Your task to perform on an android device: open wifi settings Image 0: 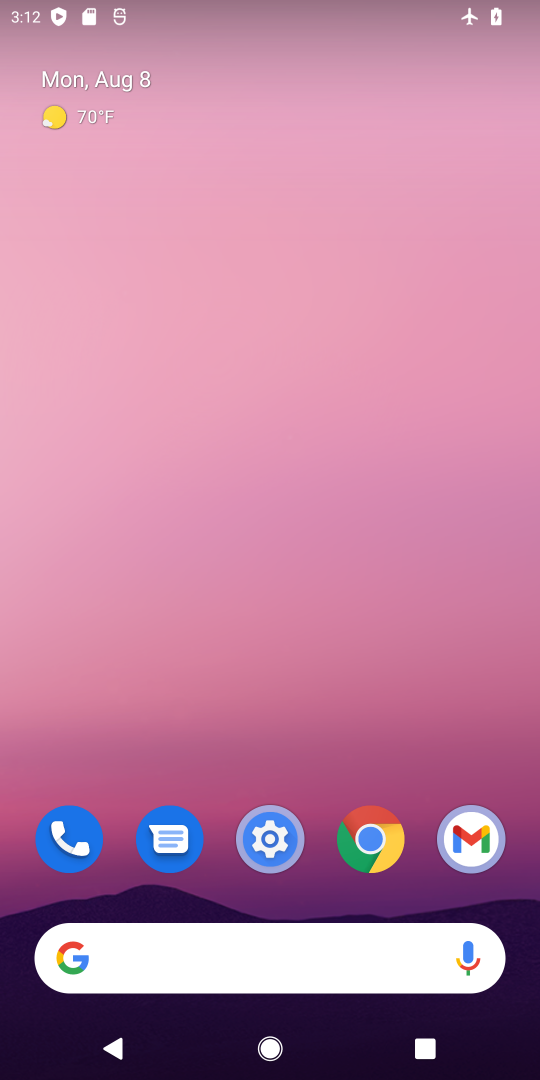
Step 0: press home button
Your task to perform on an android device: open wifi settings Image 1: 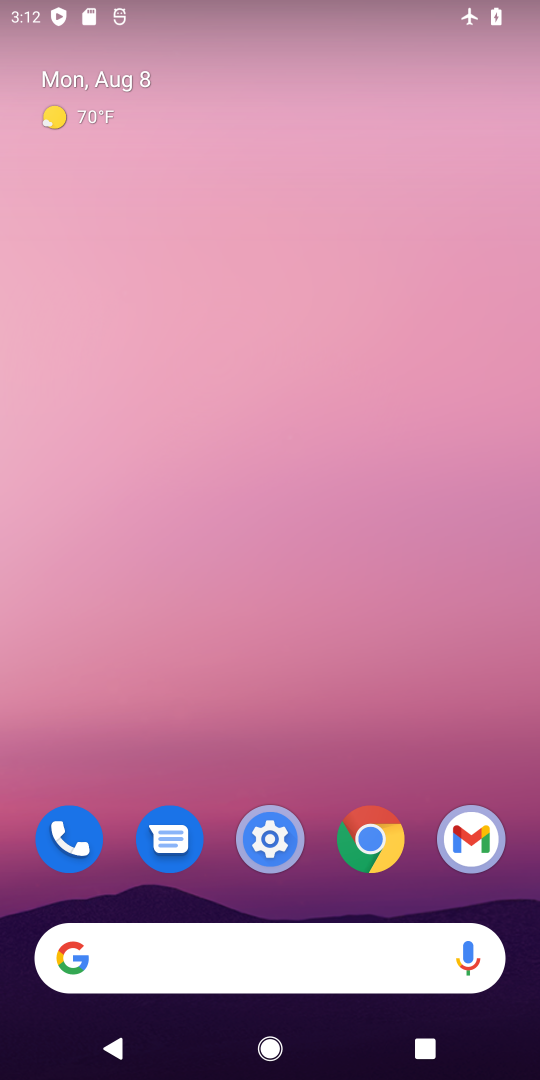
Step 1: drag from (407, 760) to (422, 231)
Your task to perform on an android device: open wifi settings Image 2: 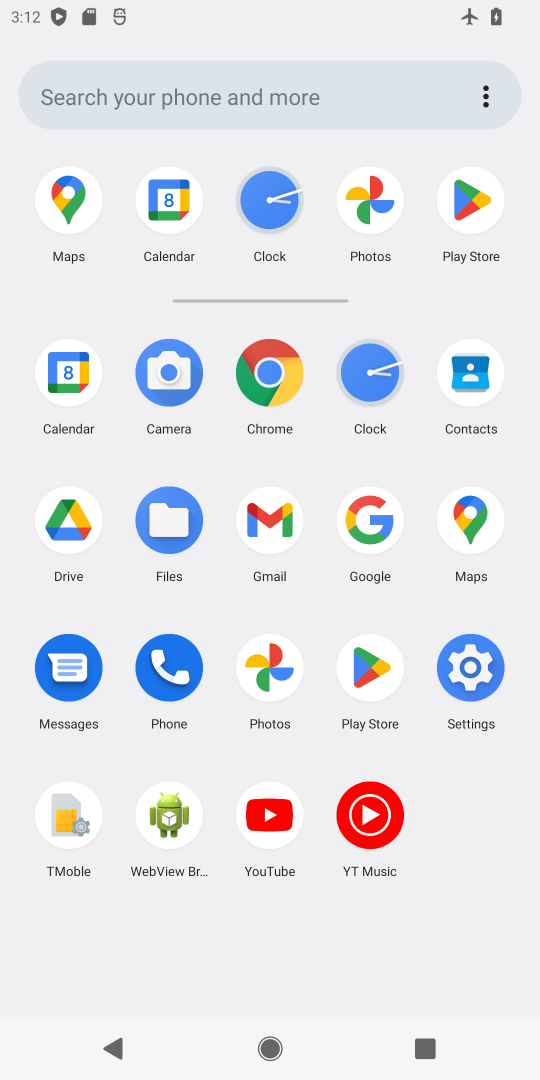
Step 2: click (469, 665)
Your task to perform on an android device: open wifi settings Image 3: 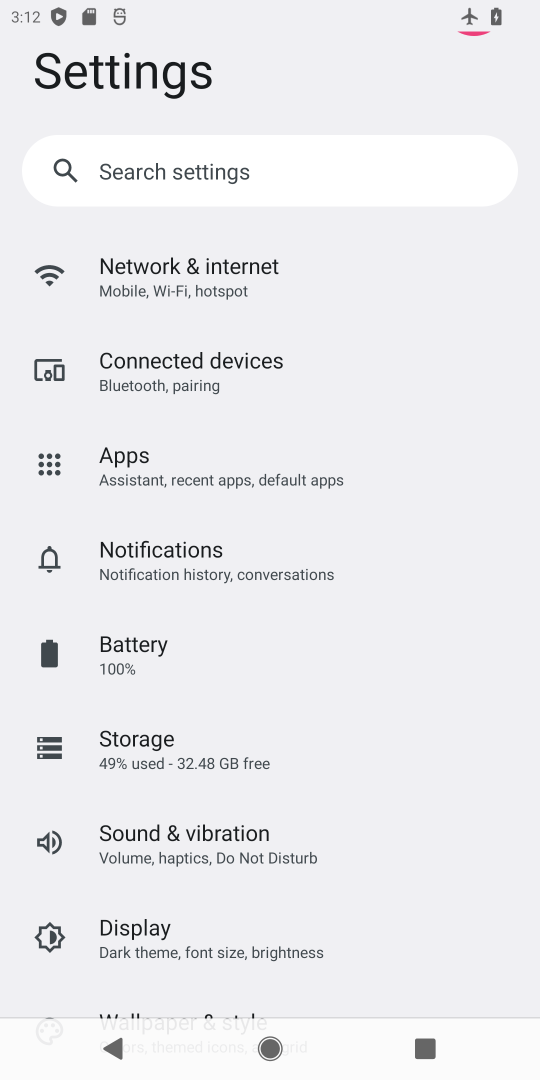
Step 3: drag from (459, 802) to (460, 519)
Your task to perform on an android device: open wifi settings Image 4: 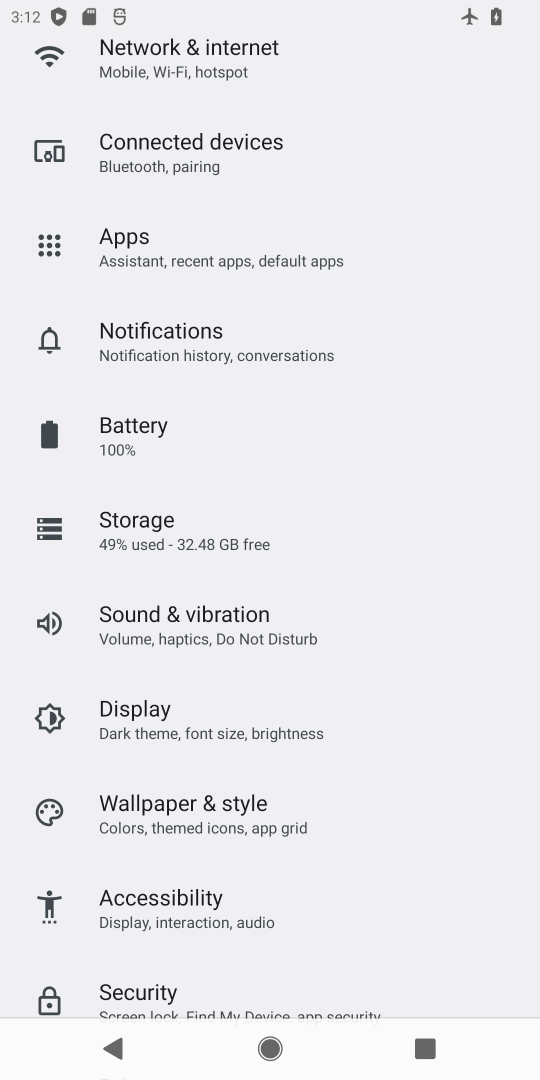
Step 4: drag from (448, 763) to (455, 519)
Your task to perform on an android device: open wifi settings Image 5: 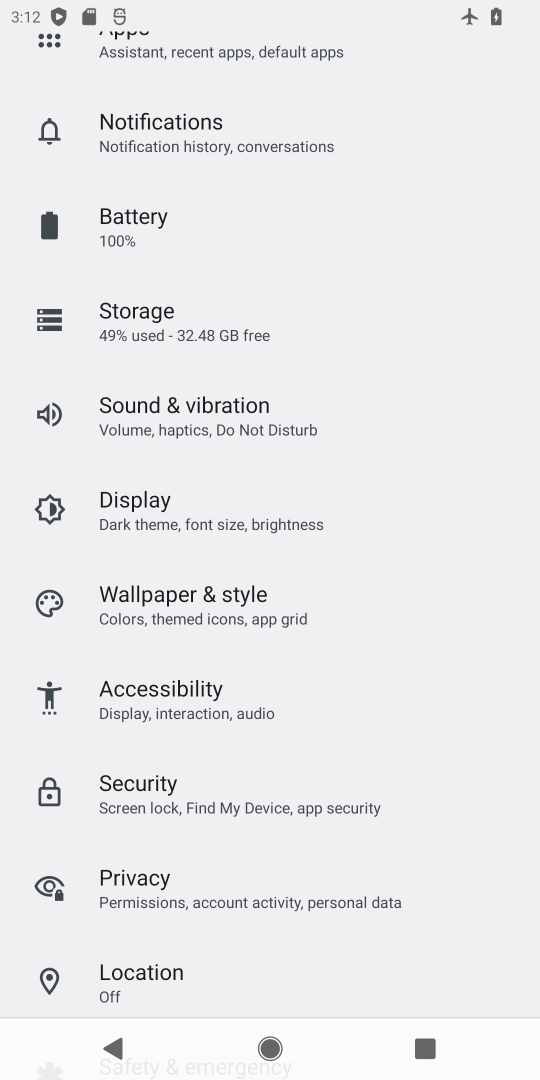
Step 5: drag from (476, 646) to (475, 404)
Your task to perform on an android device: open wifi settings Image 6: 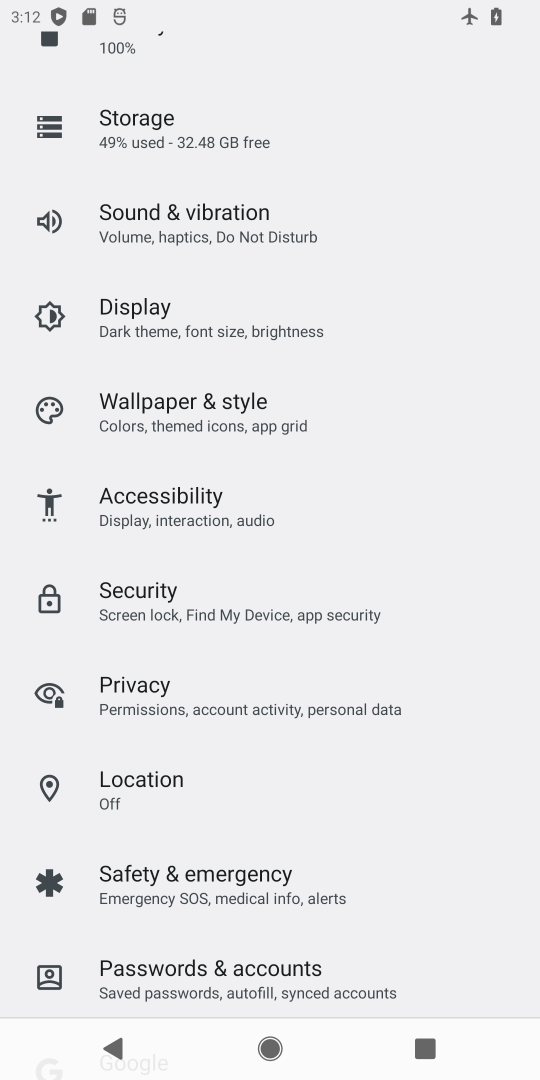
Step 6: drag from (465, 706) to (476, 435)
Your task to perform on an android device: open wifi settings Image 7: 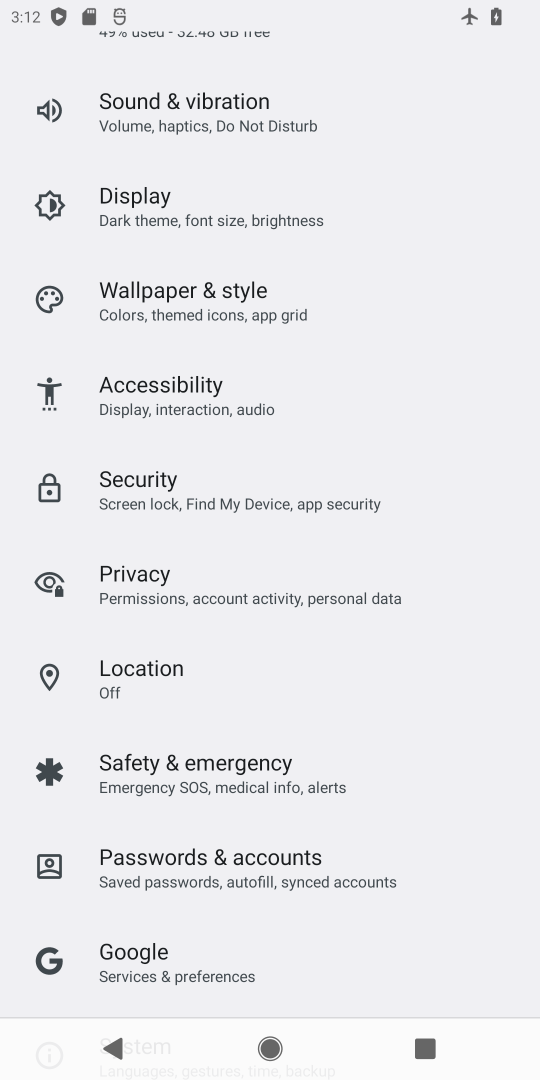
Step 7: drag from (442, 761) to (476, 354)
Your task to perform on an android device: open wifi settings Image 8: 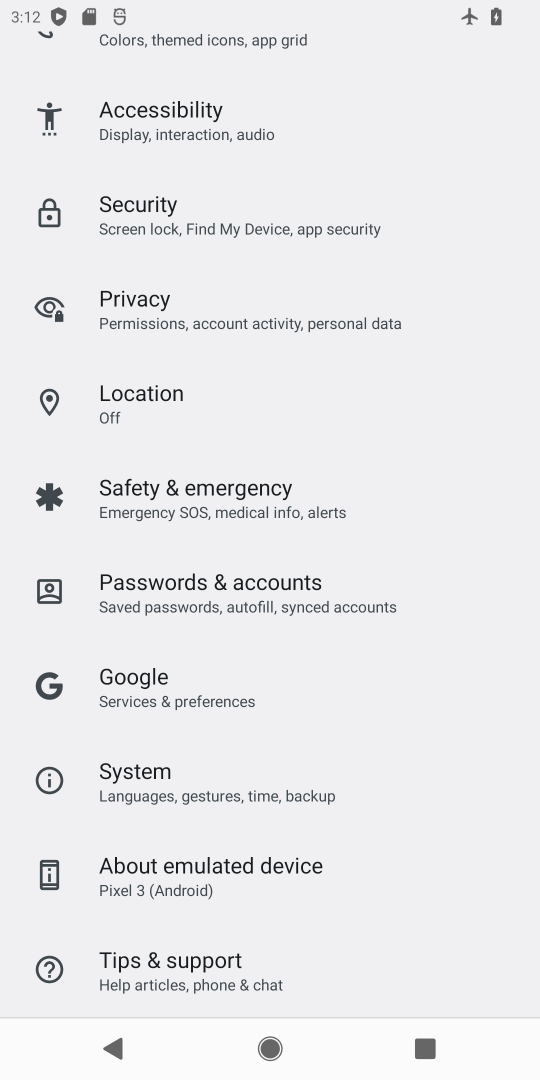
Step 8: drag from (439, 738) to (460, 336)
Your task to perform on an android device: open wifi settings Image 9: 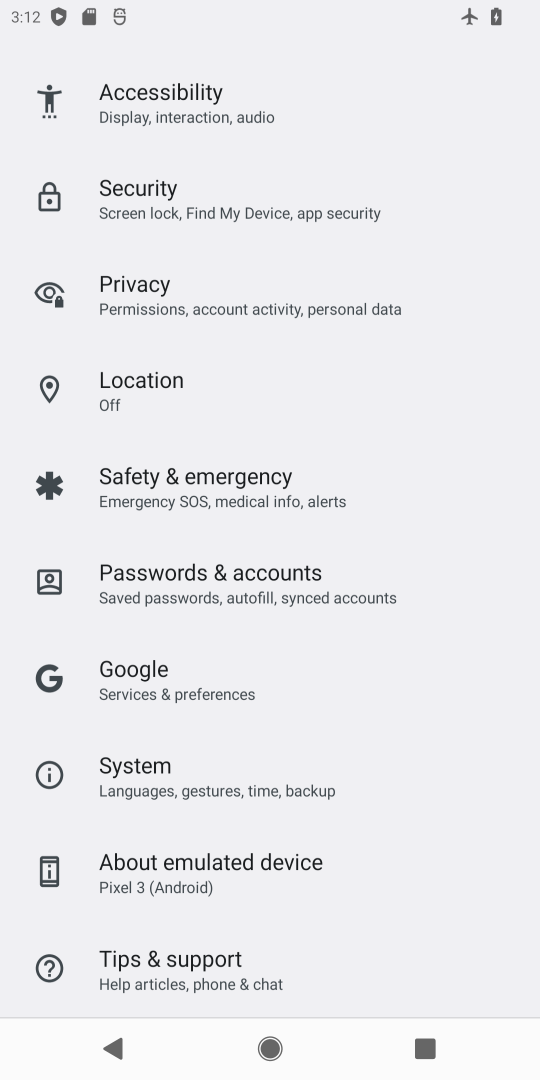
Step 9: drag from (471, 255) to (475, 589)
Your task to perform on an android device: open wifi settings Image 10: 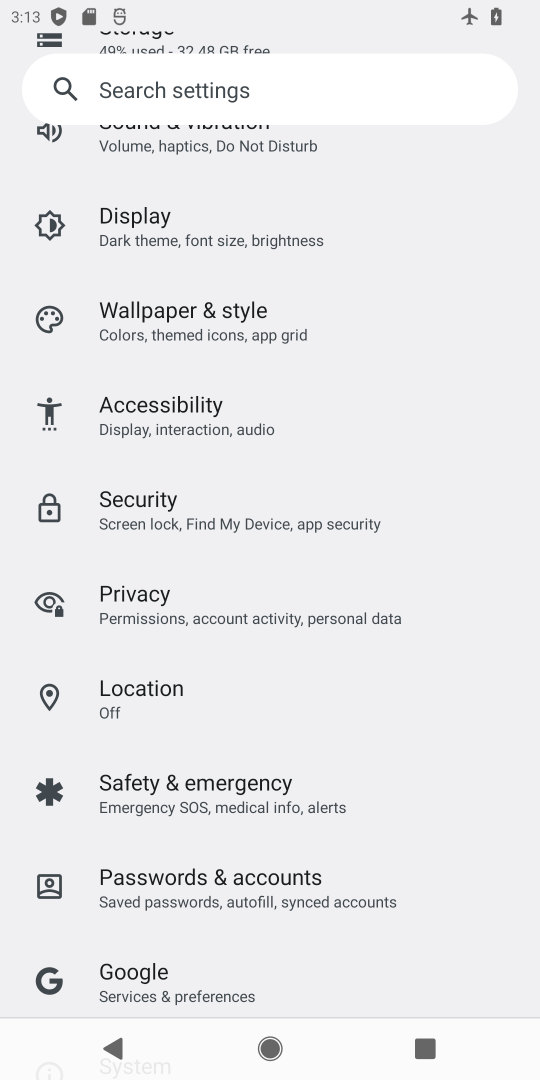
Step 10: drag from (464, 319) to (460, 614)
Your task to perform on an android device: open wifi settings Image 11: 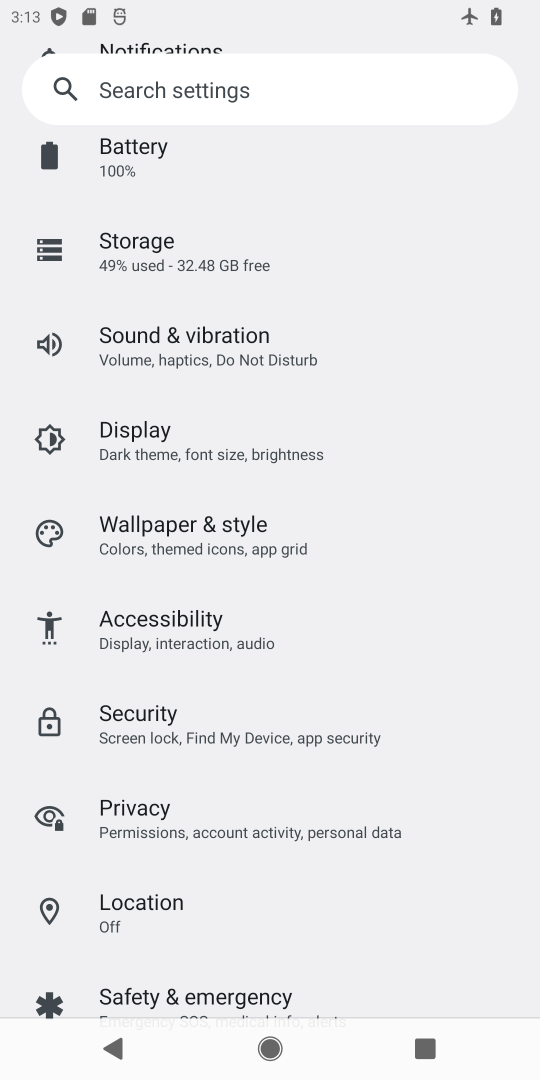
Step 11: drag from (445, 356) to (448, 648)
Your task to perform on an android device: open wifi settings Image 12: 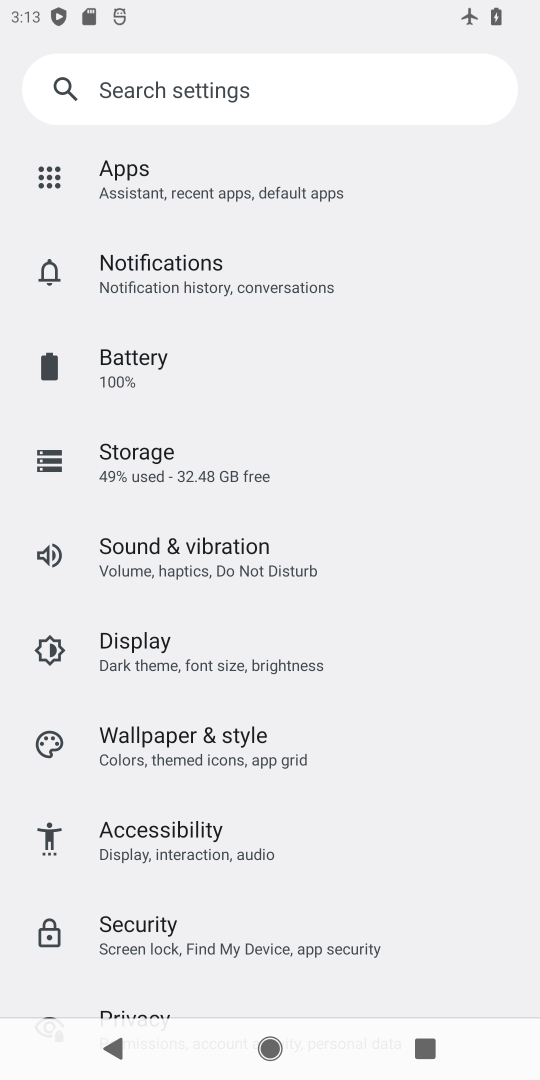
Step 12: drag from (440, 330) to (446, 584)
Your task to perform on an android device: open wifi settings Image 13: 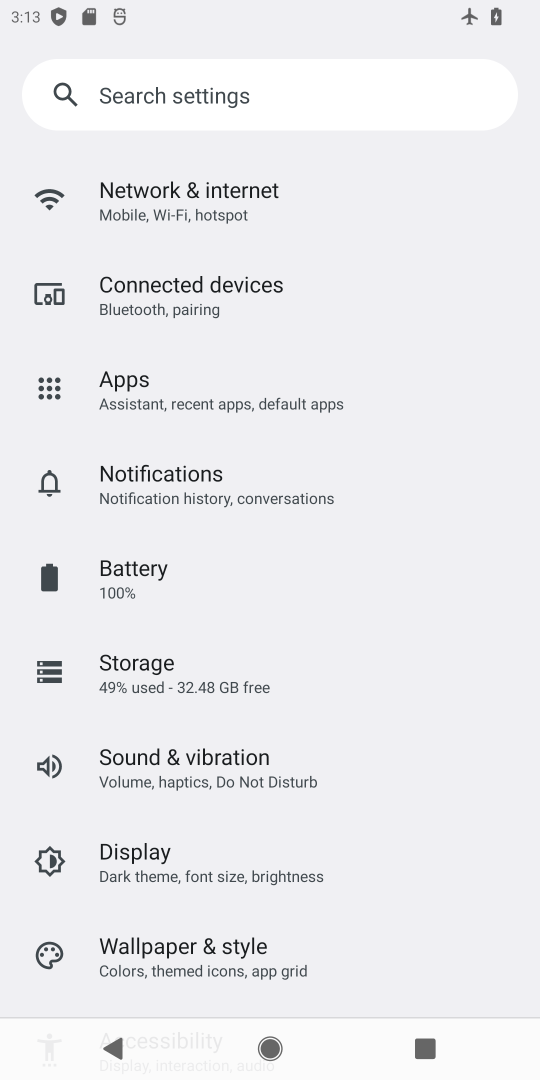
Step 13: drag from (435, 363) to (434, 522)
Your task to perform on an android device: open wifi settings Image 14: 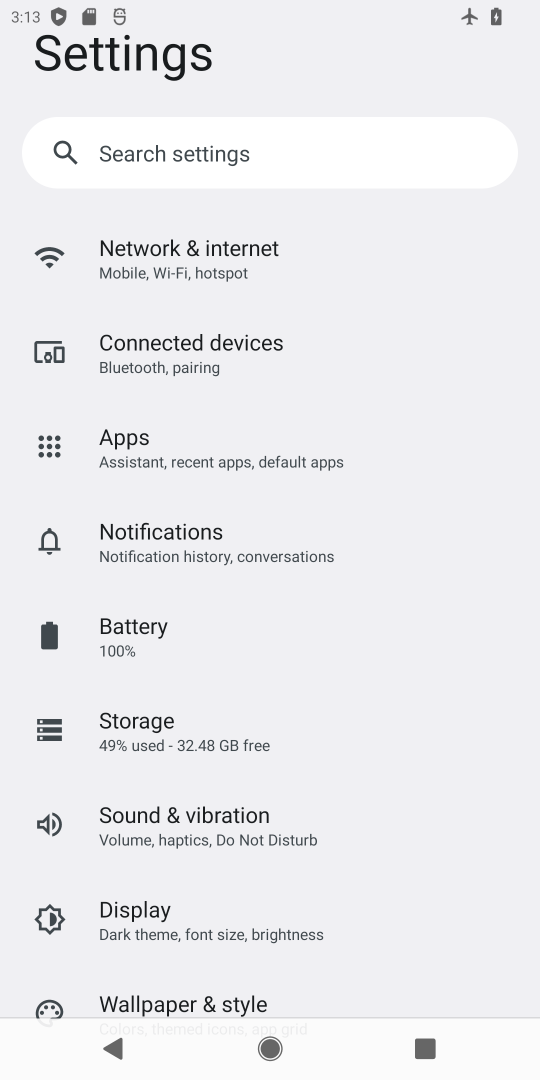
Step 14: drag from (443, 210) to (443, 558)
Your task to perform on an android device: open wifi settings Image 15: 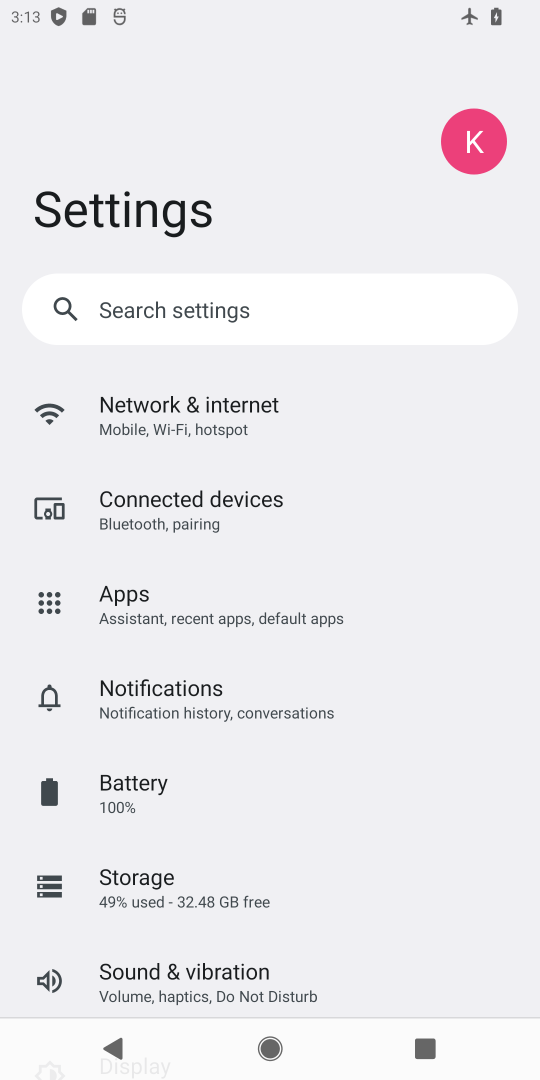
Step 15: click (358, 412)
Your task to perform on an android device: open wifi settings Image 16: 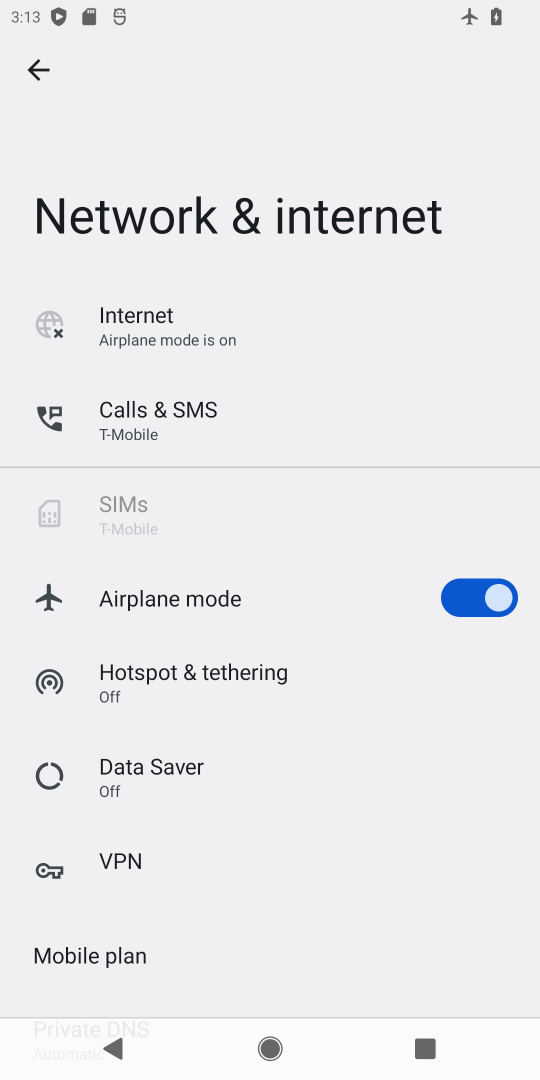
Step 16: click (201, 330)
Your task to perform on an android device: open wifi settings Image 17: 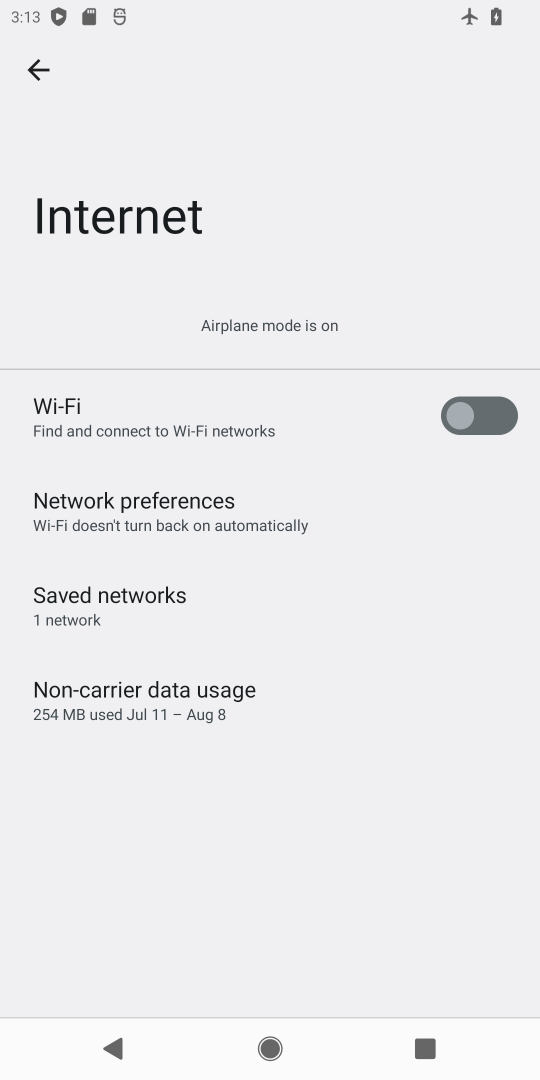
Step 17: click (163, 416)
Your task to perform on an android device: open wifi settings Image 18: 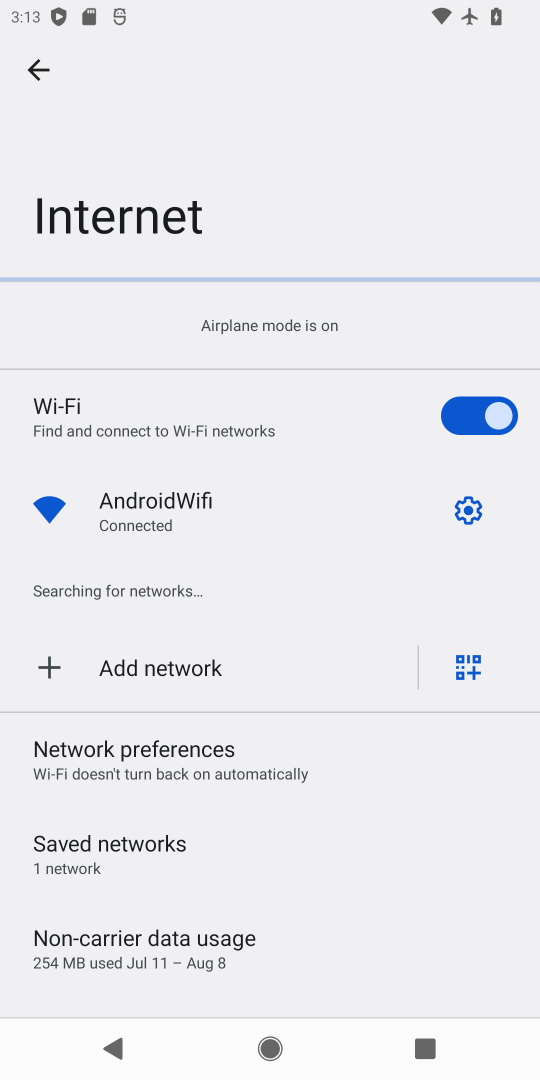
Step 18: task complete